Your task to perform on an android device: Check the news Image 0: 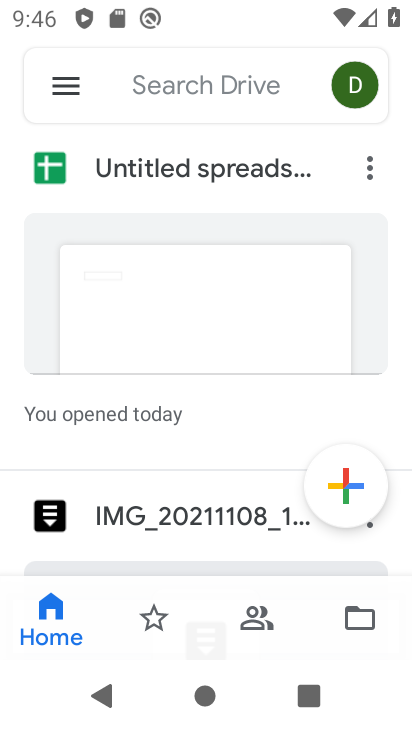
Step 0: press home button
Your task to perform on an android device: Check the news Image 1: 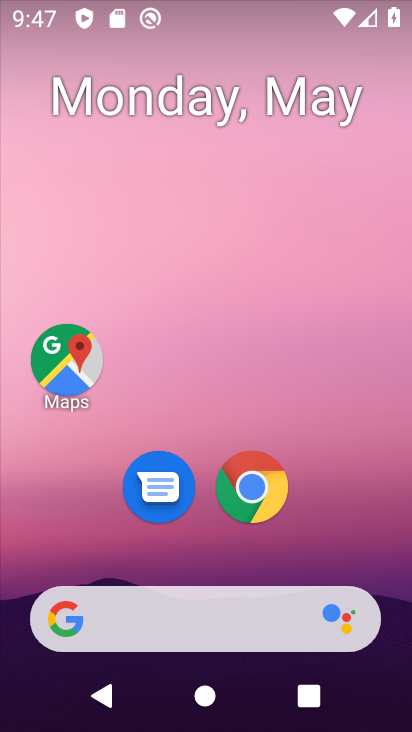
Step 1: drag from (199, 448) to (141, 0)
Your task to perform on an android device: Check the news Image 2: 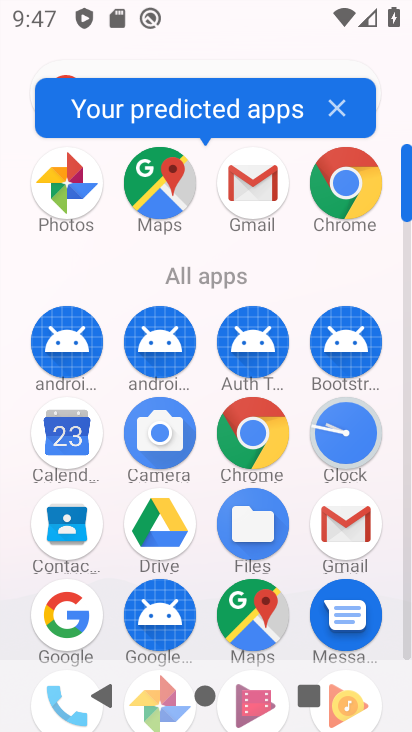
Step 2: drag from (204, 584) to (206, 183)
Your task to perform on an android device: Check the news Image 3: 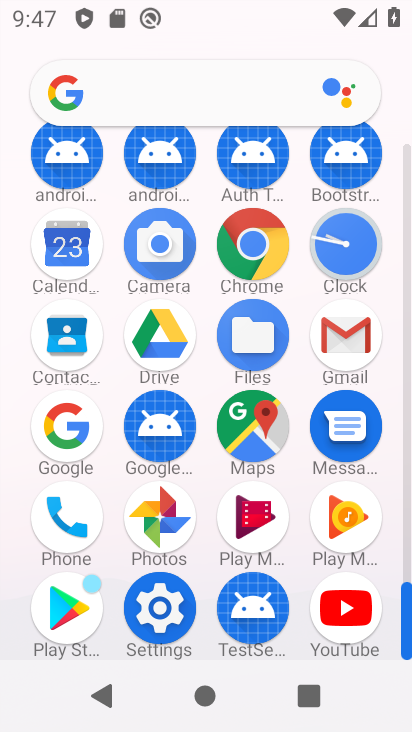
Step 3: click (183, 78)
Your task to perform on an android device: Check the news Image 4: 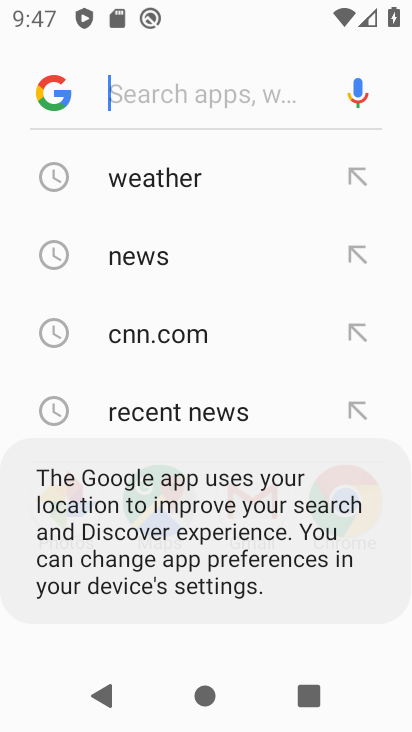
Step 4: click (162, 269)
Your task to perform on an android device: Check the news Image 5: 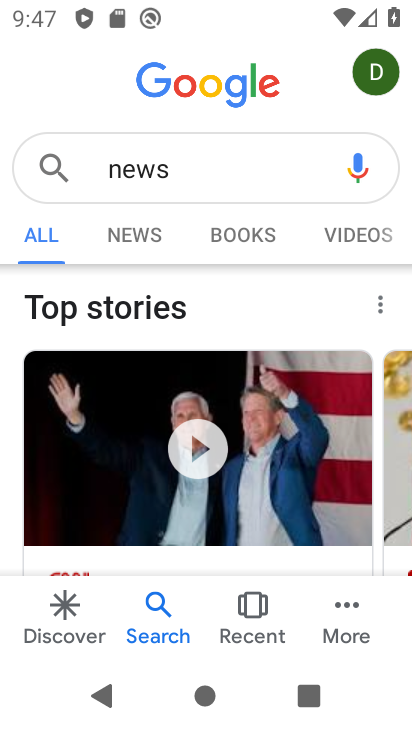
Step 5: task complete